Your task to perform on an android device: turn on notifications settings in the gmail app Image 0: 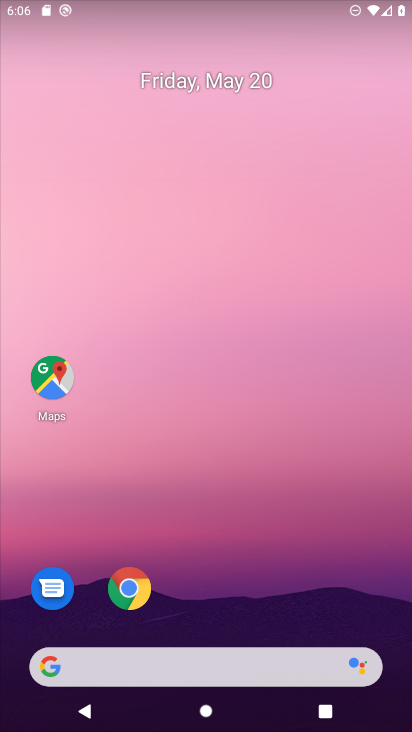
Step 0: drag from (224, 613) to (253, 36)
Your task to perform on an android device: turn on notifications settings in the gmail app Image 1: 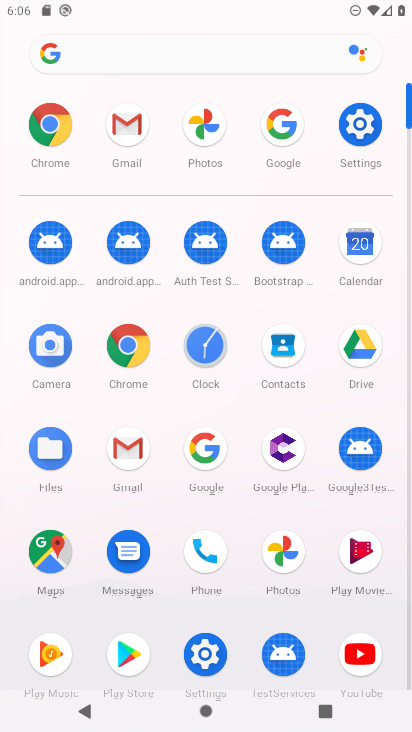
Step 1: click (133, 152)
Your task to perform on an android device: turn on notifications settings in the gmail app Image 2: 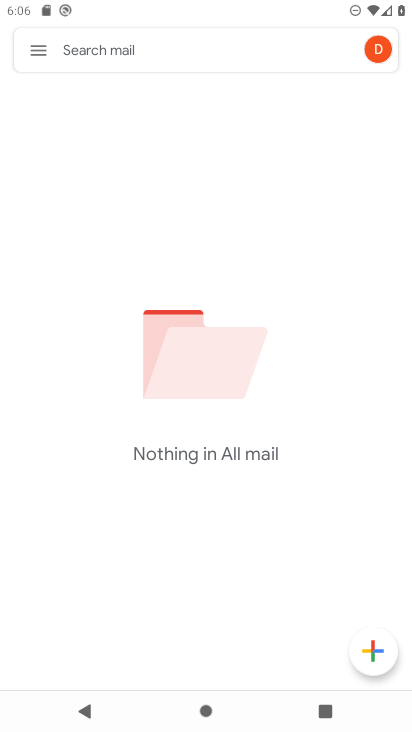
Step 2: click (38, 55)
Your task to perform on an android device: turn on notifications settings in the gmail app Image 3: 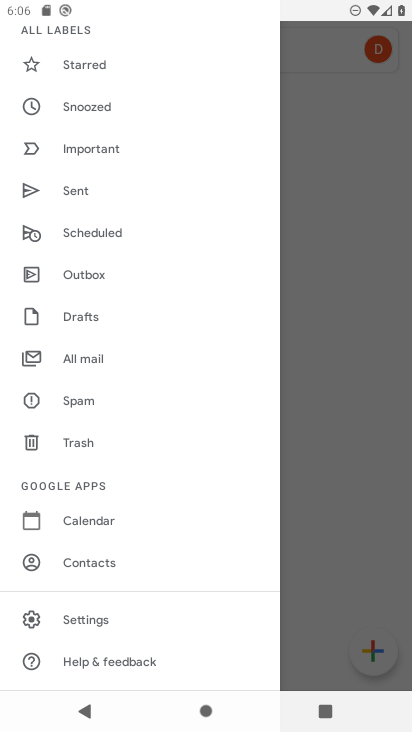
Step 3: click (85, 623)
Your task to perform on an android device: turn on notifications settings in the gmail app Image 4: 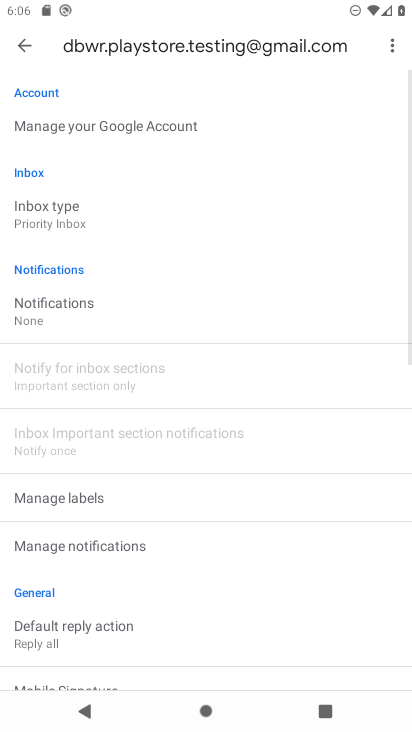
Step 4: click (60, 312)
Your task to perform on an android device: turn on notifications settings in the gmail app Image 5: 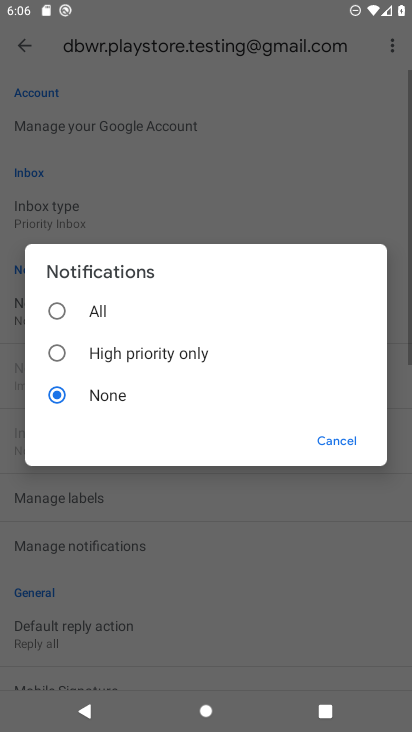
Step 5: click (63, 294)
Your task to perform on an android device: turn on notifications settings in the gmail app Image 6: 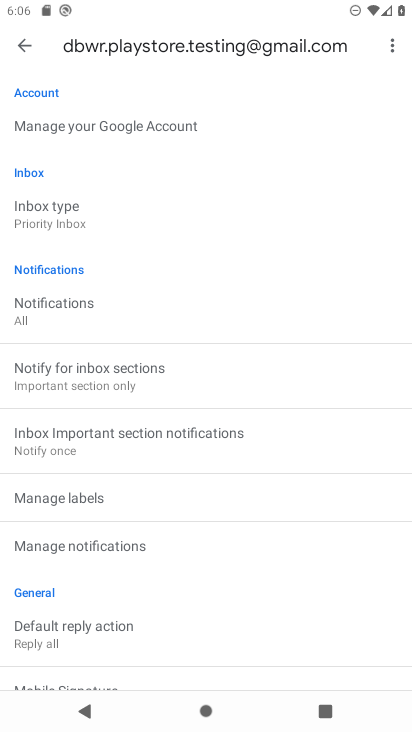
Step 6: task complete